Your task to perform on an android device: turn off smart reply in the gmail app Image 0: 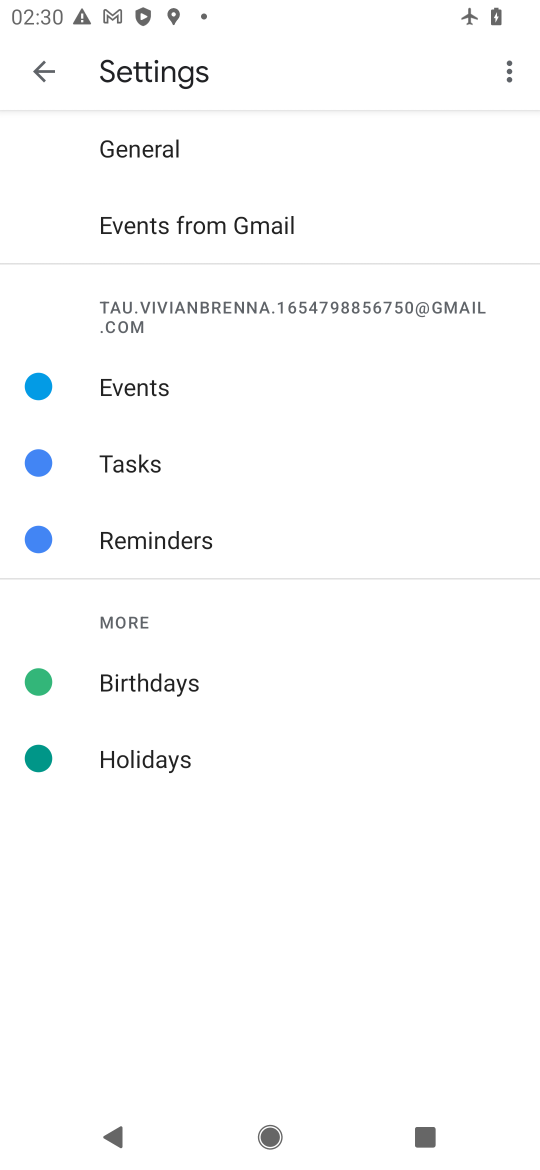
Step 0: press home button
Your task to perform on an android device: turn off smart reply in the gmail app Image 1: 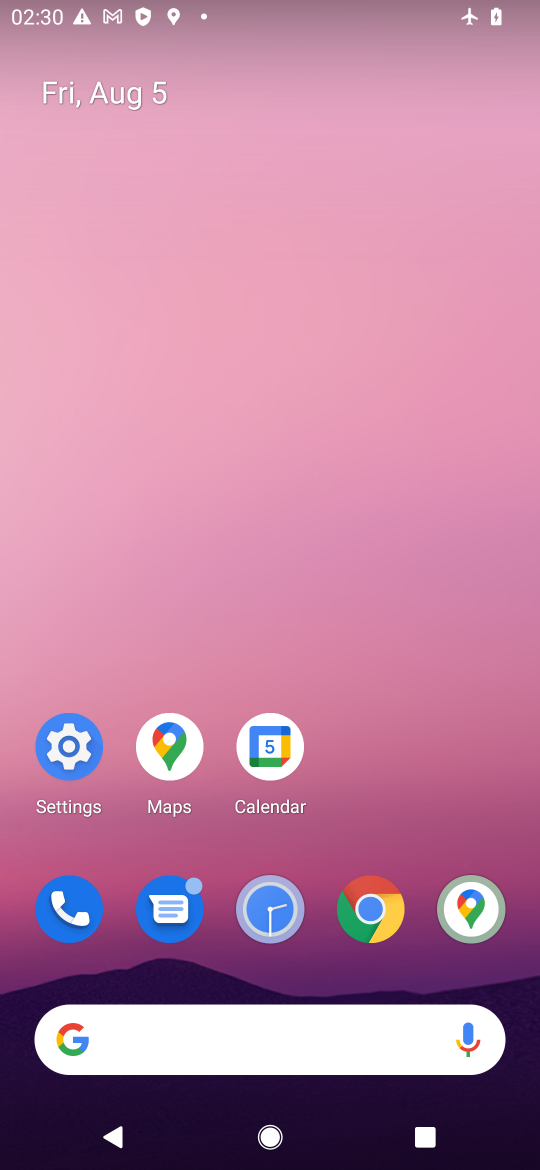
Step 1: drag from (376, 806) to (339, 130)
Your task to perform on an android device: turn off smart reply in the gmail app Image 2: 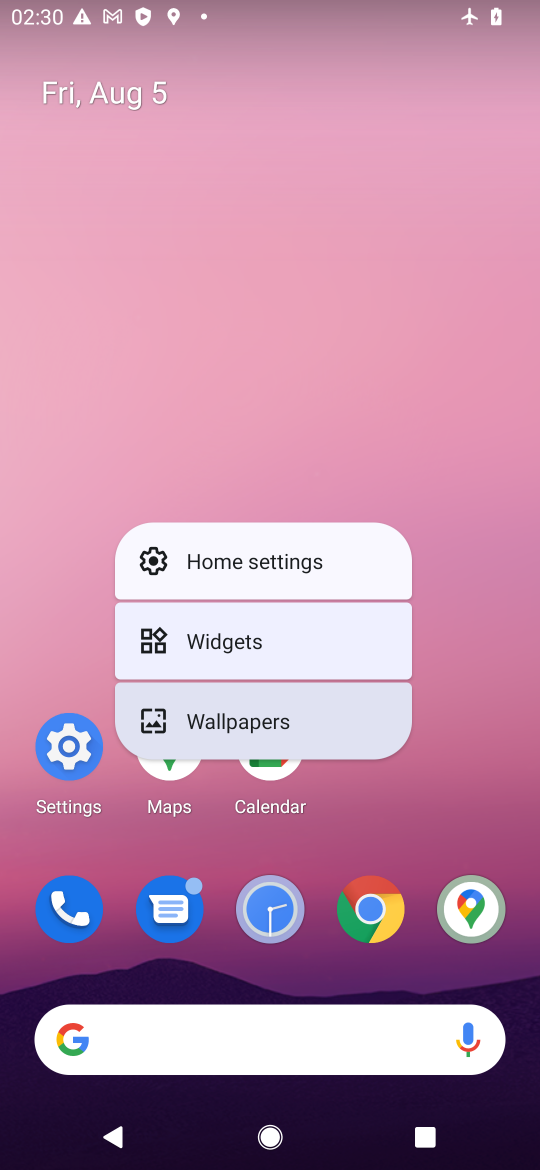
Step 2: click (413, 824)
Your task to perform on an android device: turn off smart reply in the gmail app Image 3: 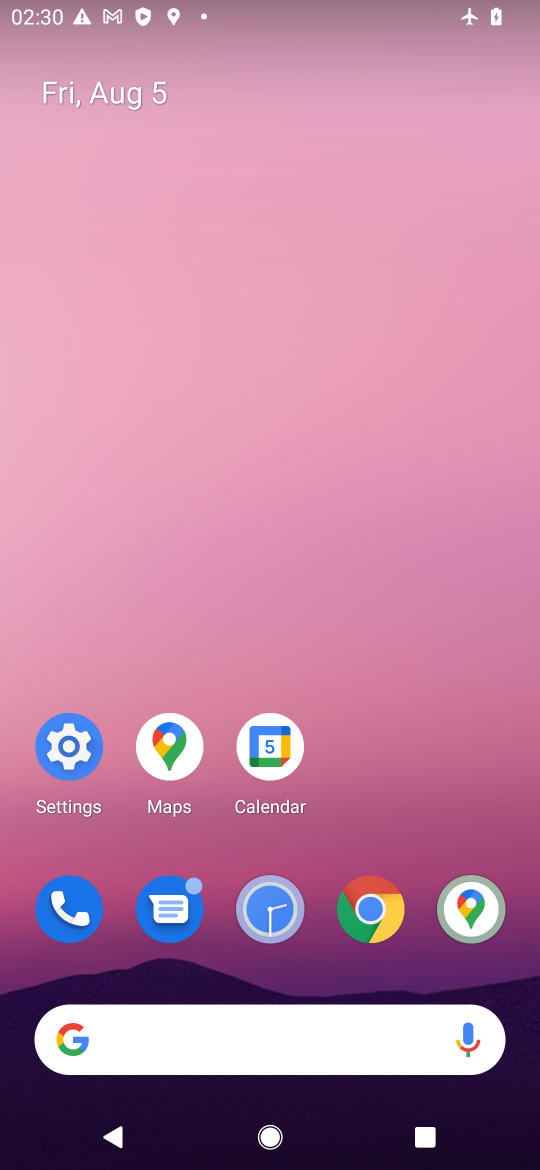
Step 3: drag from (413, 824) to (224, 10)
Your task to perform on an android device: turn off smart reply in the gmail app Image 4: 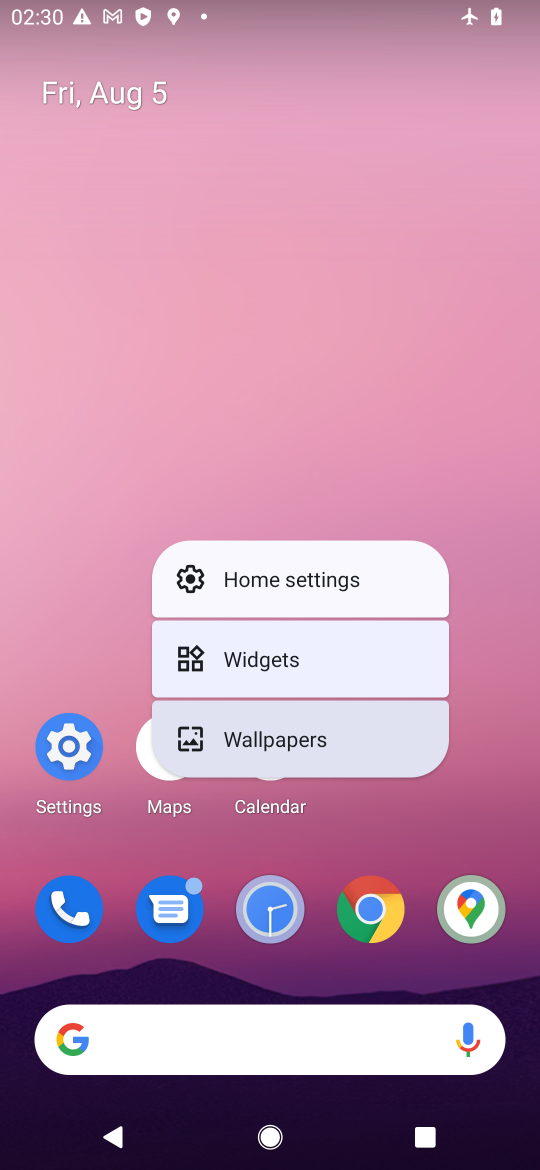
Step 4: click (303, 386)
Your task to perform on an android device: turn off smart reply in the gmail app Image 5: 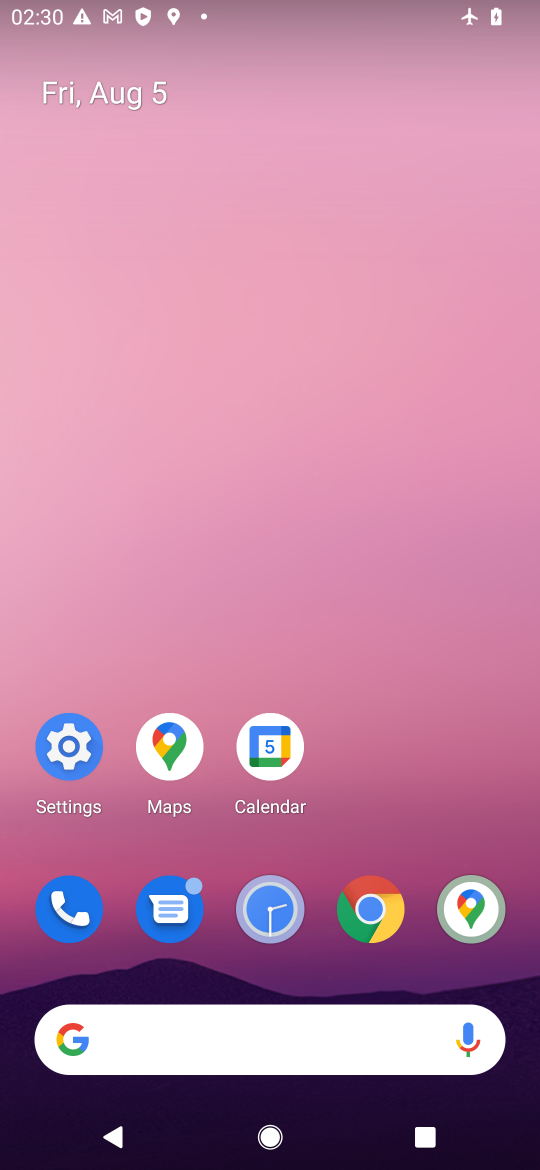
Step 5: drag from (319, 845) to (315, 111)
Your task to perform on an android device: turn off smart reply in the gmail app Image 6: 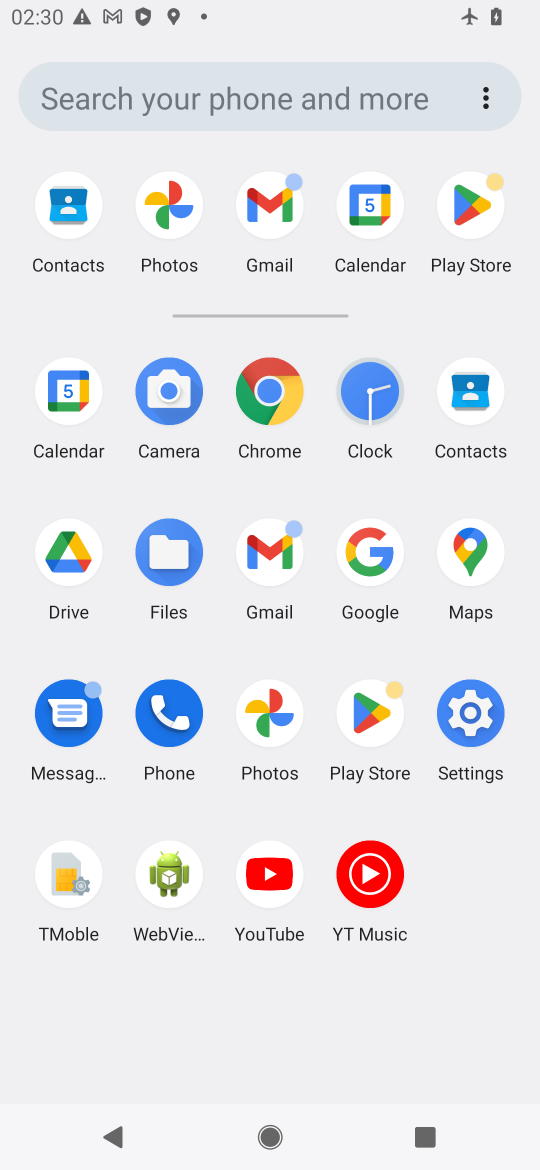
Step 6: click (274, 200)
Your task to perform on an android device: turn off smart reply in the gmail app Image 7: 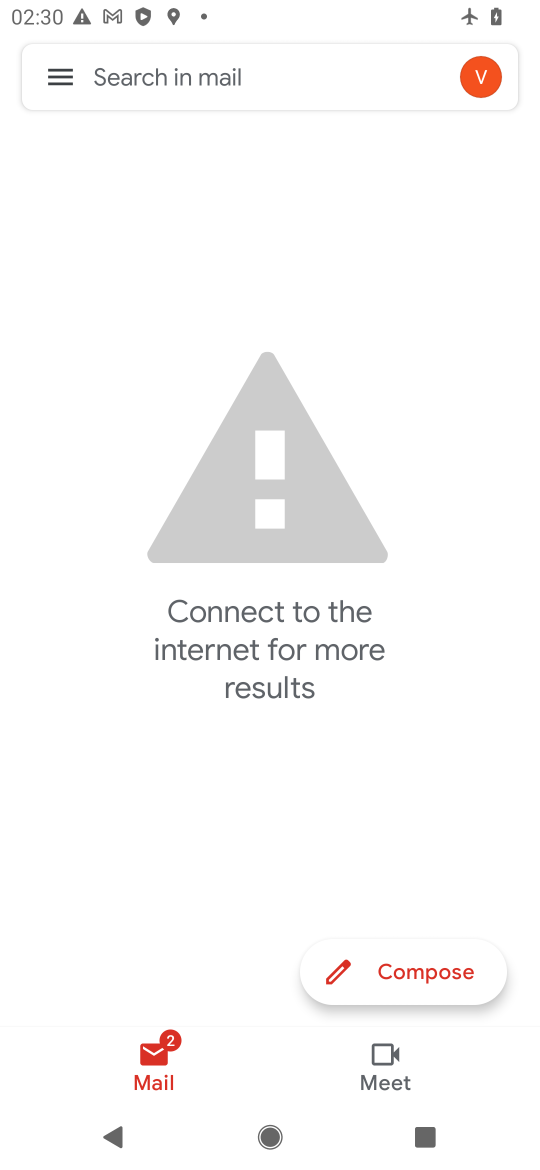
Step 7: click (55, 76)
Your task to perform on an android device: turn off smart reply in the gmail app Image 8: 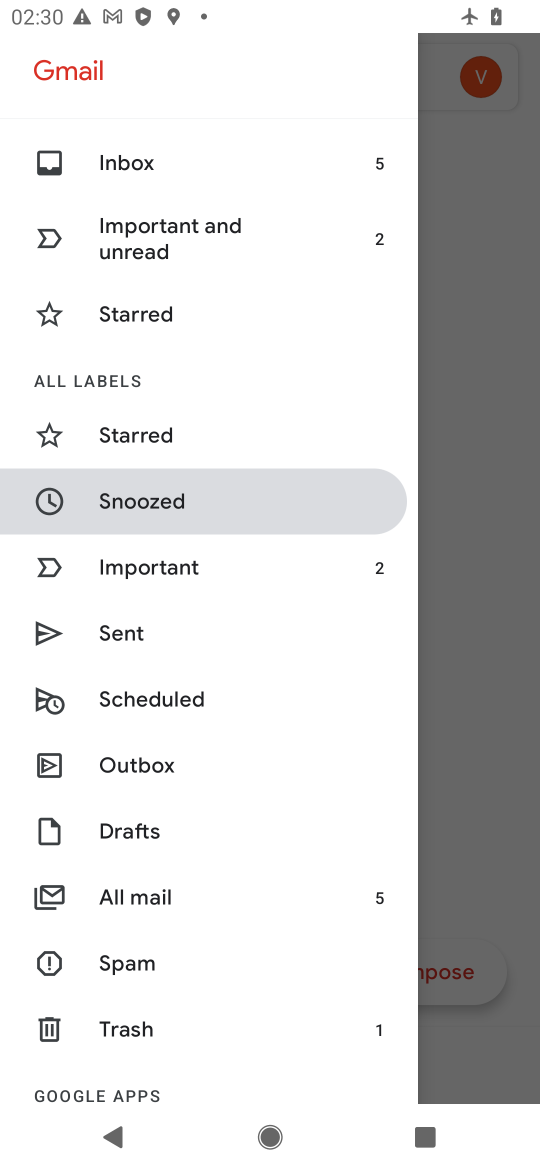
Step 8: drag from (188, 987) to (202, 147)
Your task to perform on an android device: turn off smart reply in the gmail app Image 9: 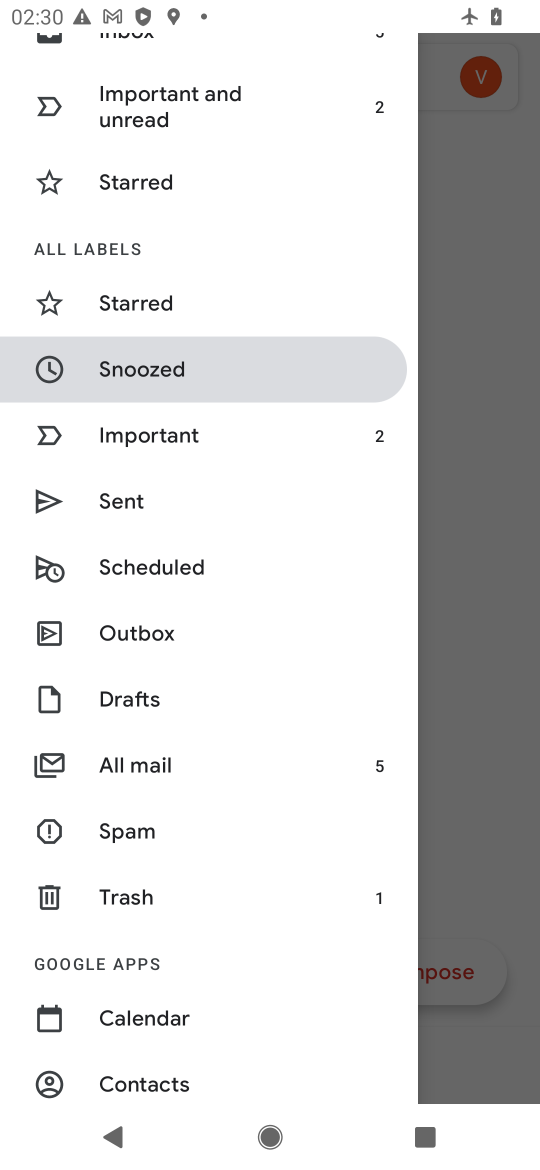
Step 9: drag from (278, 976) to (325, 307)
Your task to perform on an android device: turn off smart reply in the gmail app Image 10: 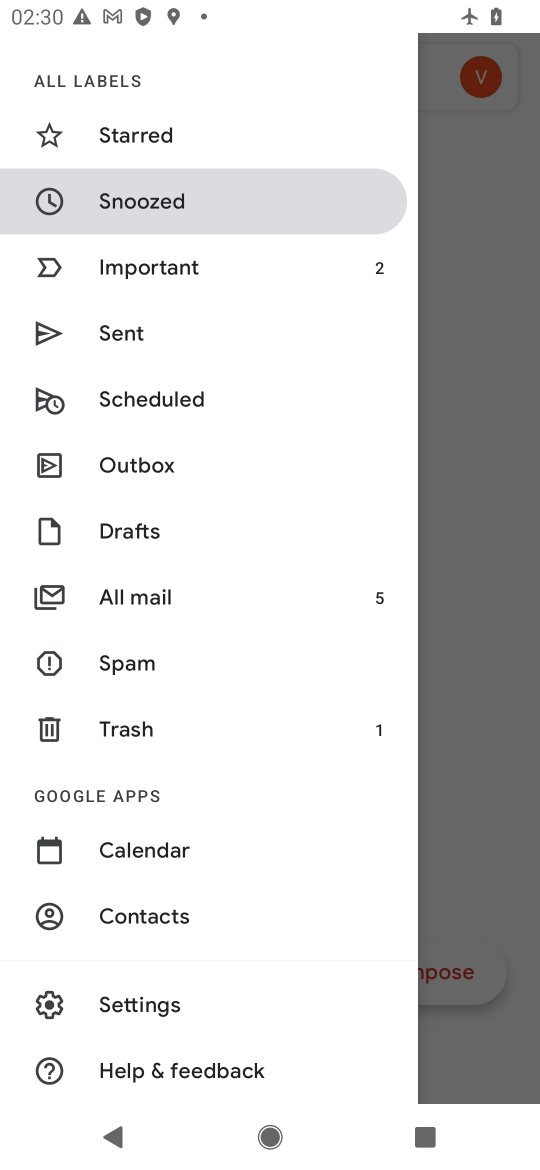
Step 10: click (138, 1002)
Your task to perform on an android device: turn off smart reply in the gmail app Image 11: 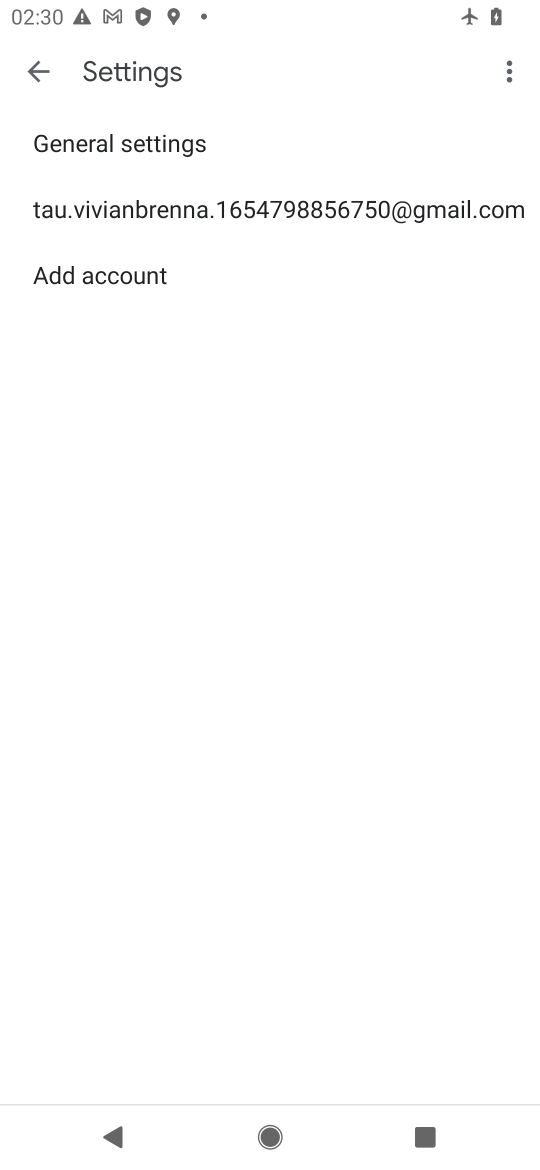
Step 11: click (121, 204)
Your task to perform on an android device: turn off smart reply in the gmail app Image 12: 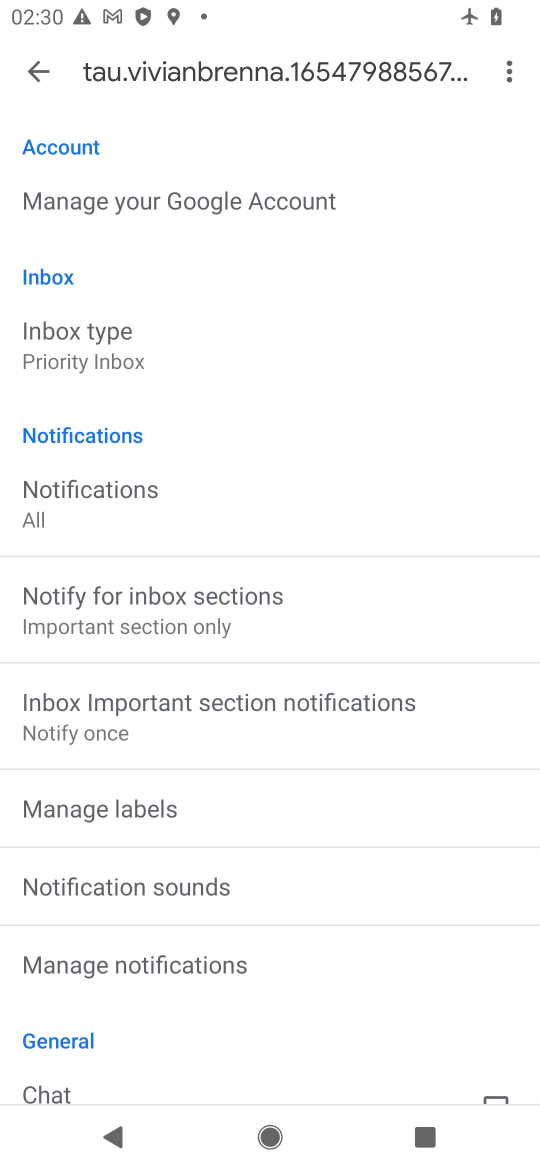
Step 12: task complete